Your task to perform on an android device: check data usage Image 0: 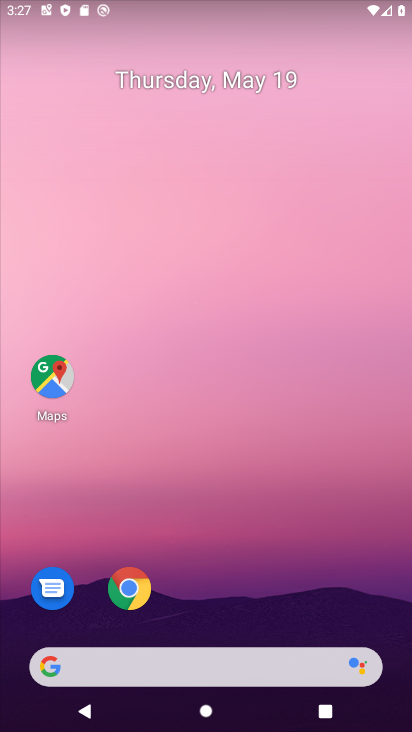
Step 0: drag from (237, 6) to (239, 521)
Your task to perform on an android device: check data usage Image 1: 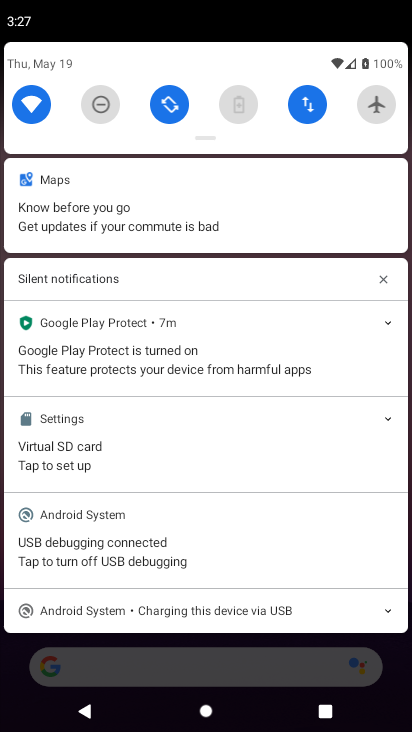
Step 1: click (306, 99)
Your task to perform on an android device: check data usage Image 2: 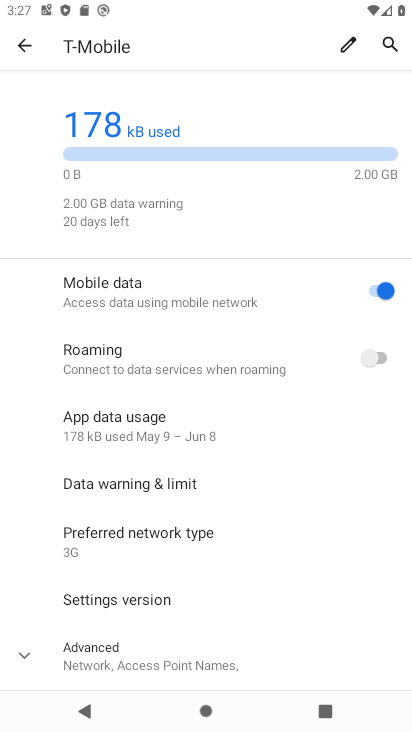
Step 2: task complete